Your task to perform on an android device: Go to Google Image 0: 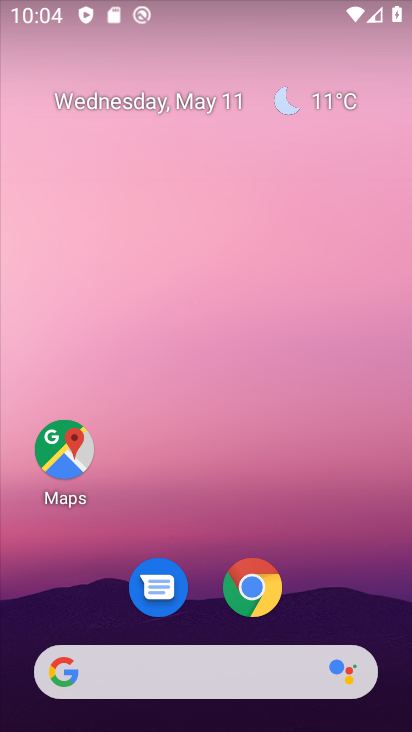
Step 0: click (86, 678)
Your task to perform on an android device: Go to Google Image 1: 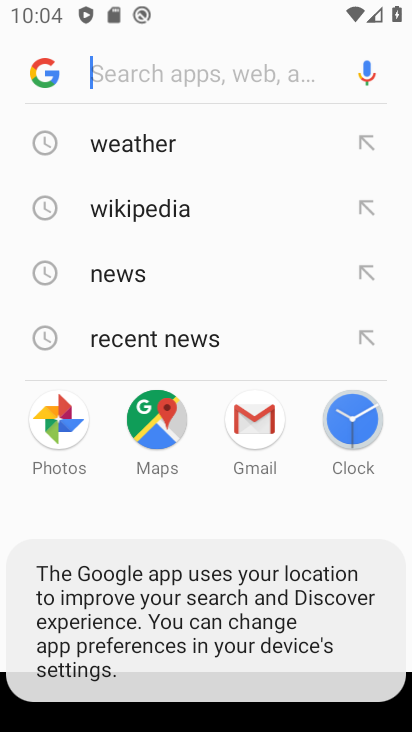
Step 1: click (37, 76)
Your task to perform on an android device: Go to Google Image 2: 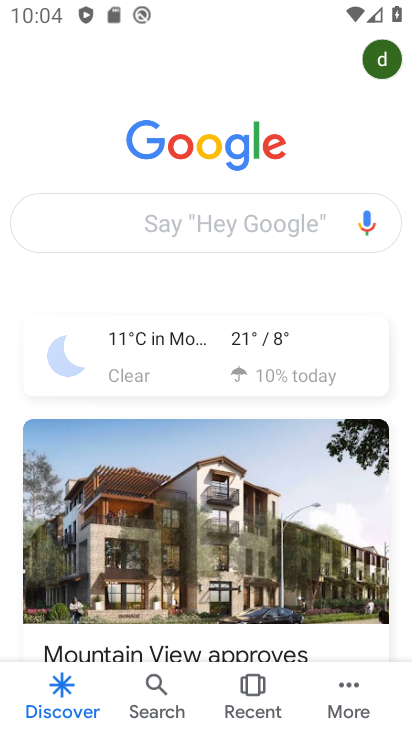
Step 2: task complete